Your task to perform on an android device: set the timer Image 0: 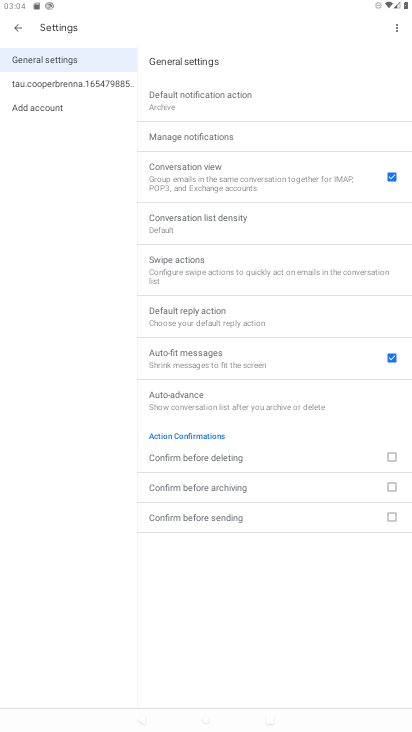
Step 0: press home button
Your task to perform on an android device: set the timer Image 1: 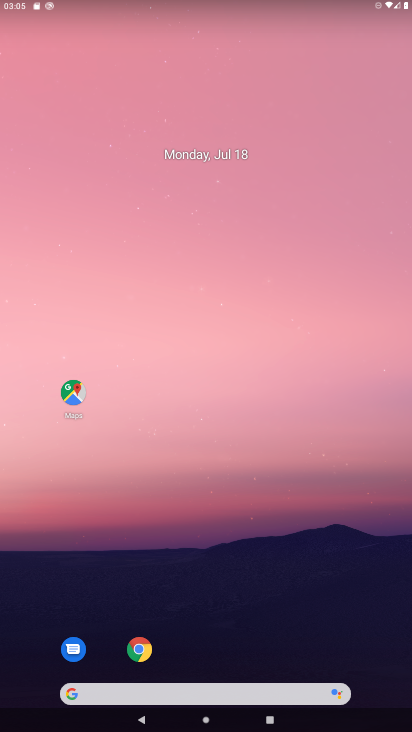
Step 1: drag from (146, 532) to (129, 1)
Your task to perform on an android device: set the timer Image 2: 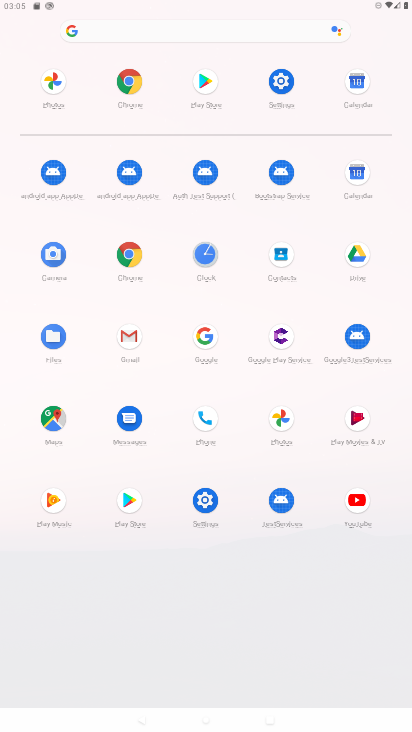
Step 2: click (205, 254)
Your task to perform on an android device: set the timer Image 3: 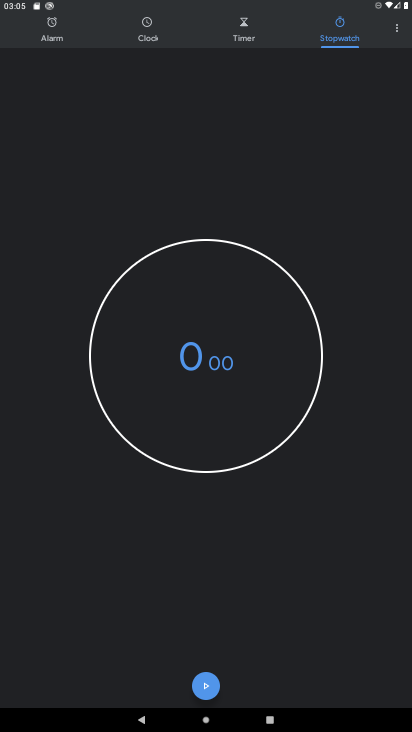
Step 3: click (244, 33)
Your task to perform on an android device: set the timer Image 4: 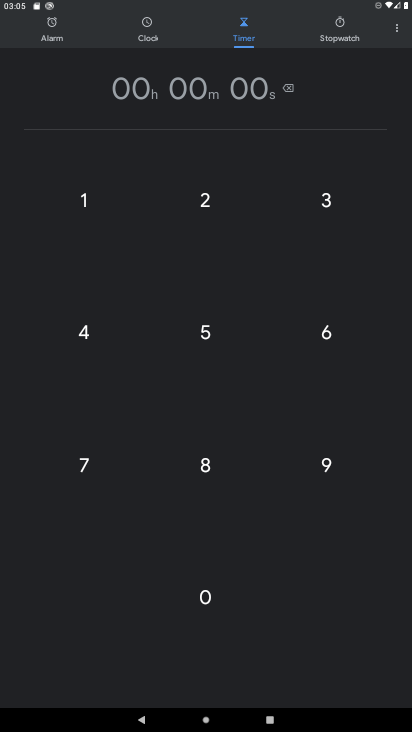
Step 4: click (333, 333)
Your task to perform on an android device: set the timer Image 5: 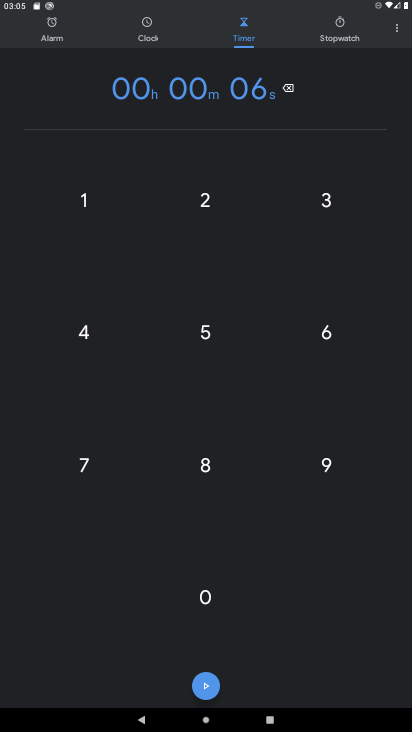
Step 5: click (330, 463)
Your task to perform on an android device: set the timer Image 6: 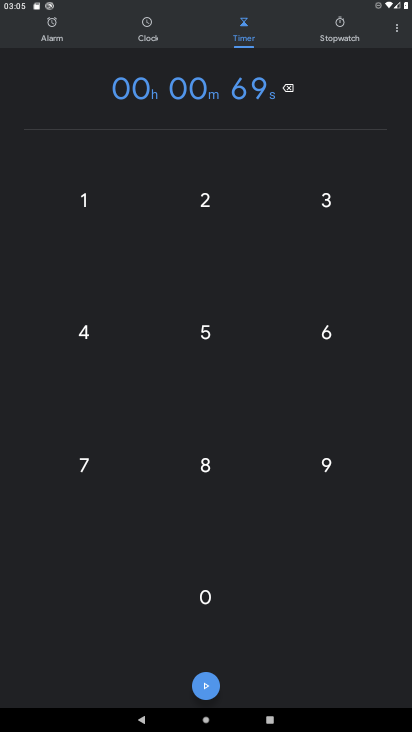
Step 6: click (200, 334)
Your task to perform on an android device: set the timer Image 7: 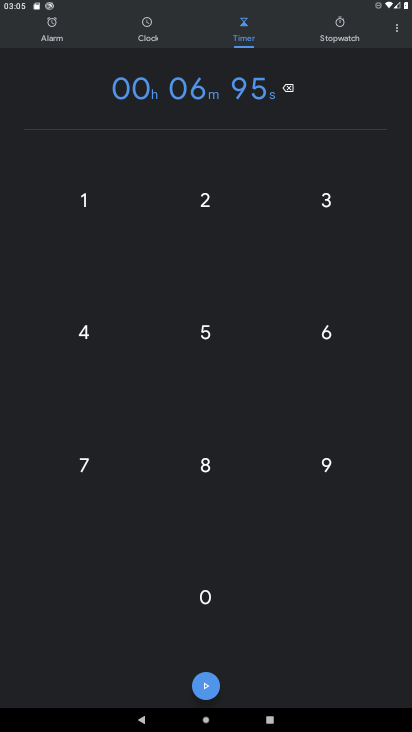
Step 7: task complete